Your task to perform on an android device: turn off notifications settings in the gmail app Image 0: 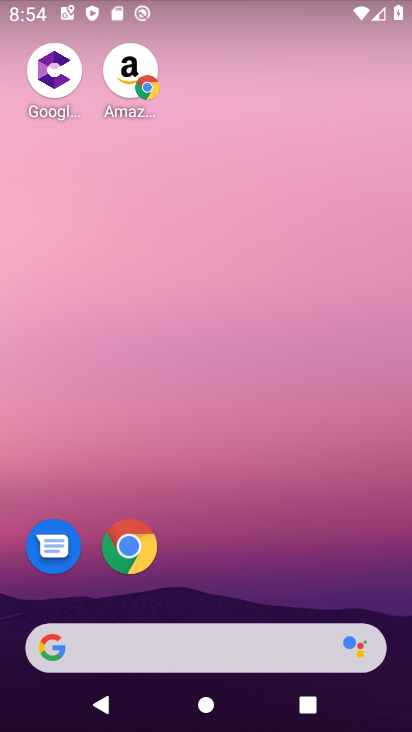
Step 0: drag from (216, 684) to (183, 266)
Your task to perform on an android device: turn off notifications settings in the gmail app Image 1: 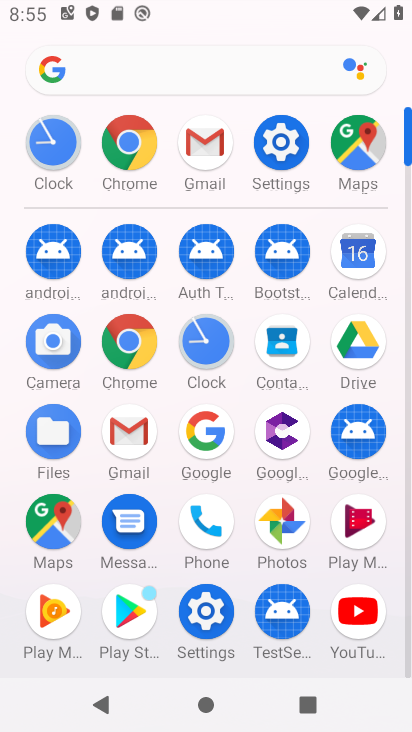
Step 1: click (149, 431)
Your task to perform on an android device: turn off notifications settings in the gmail app Image 2: 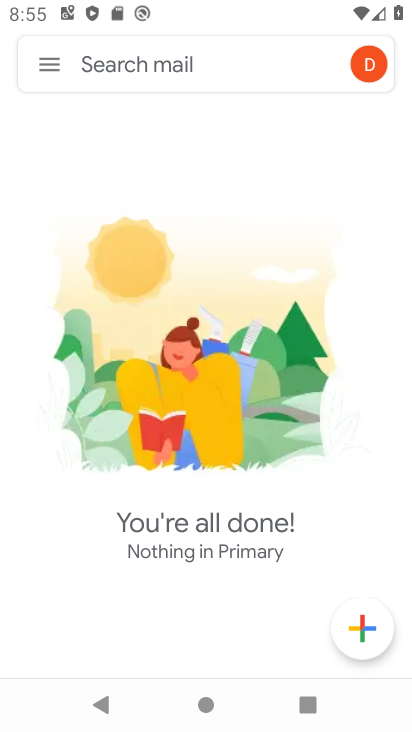
Step 2: click (58, 65)
Your task to perform on an android device: turn off notifications settings in the gmail app Image 3: 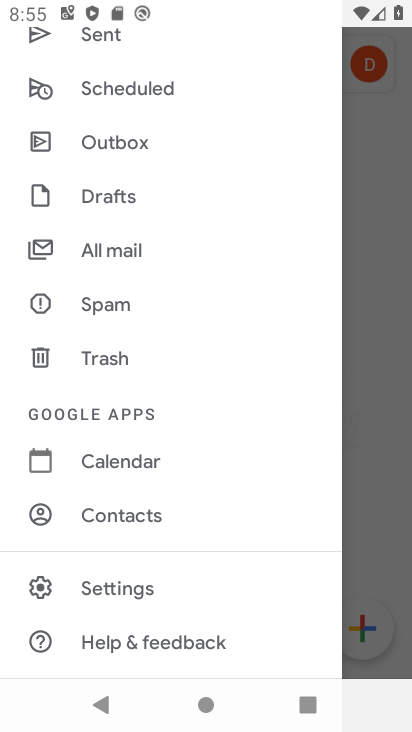
Step 3: click (151, 589)
Your task to perform on an android device: turn off notifications settings in the gmail app Image 4: 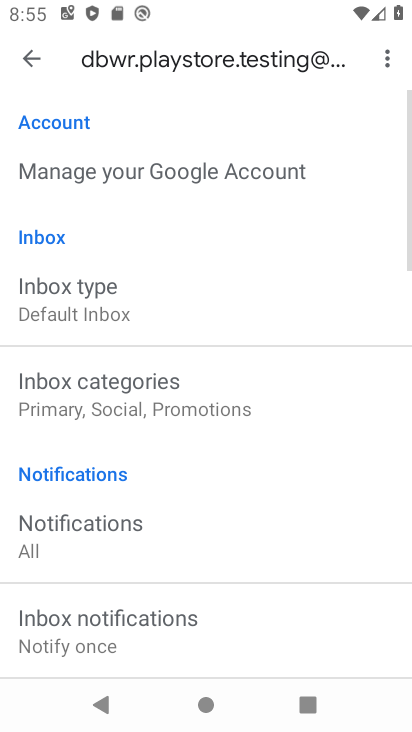
Step 4: click (138, 547)
Your task to perform on an android device: turn off notifications settings in the gmail app Image 5: 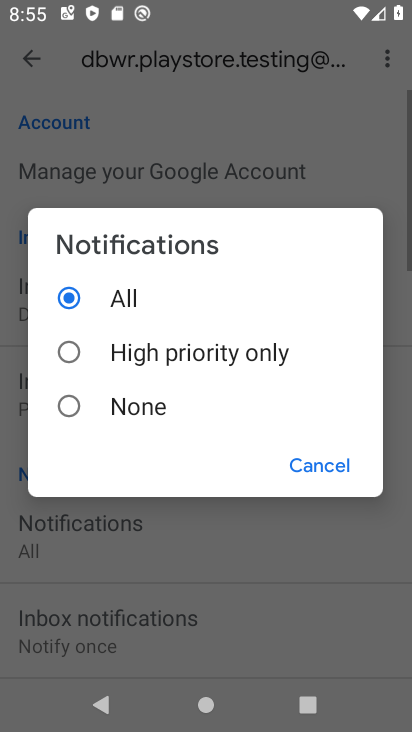
Step 5: click (157, 416)
Your task to perform on an android device: turn off notifications settings in the gmail app Image 6: 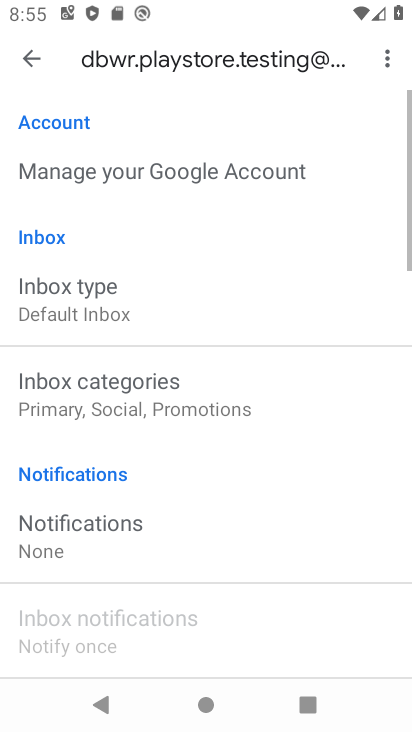
Step 6: task complete